Your task to perform on an android device: Open calendar and show me the third week of next month Image 0: 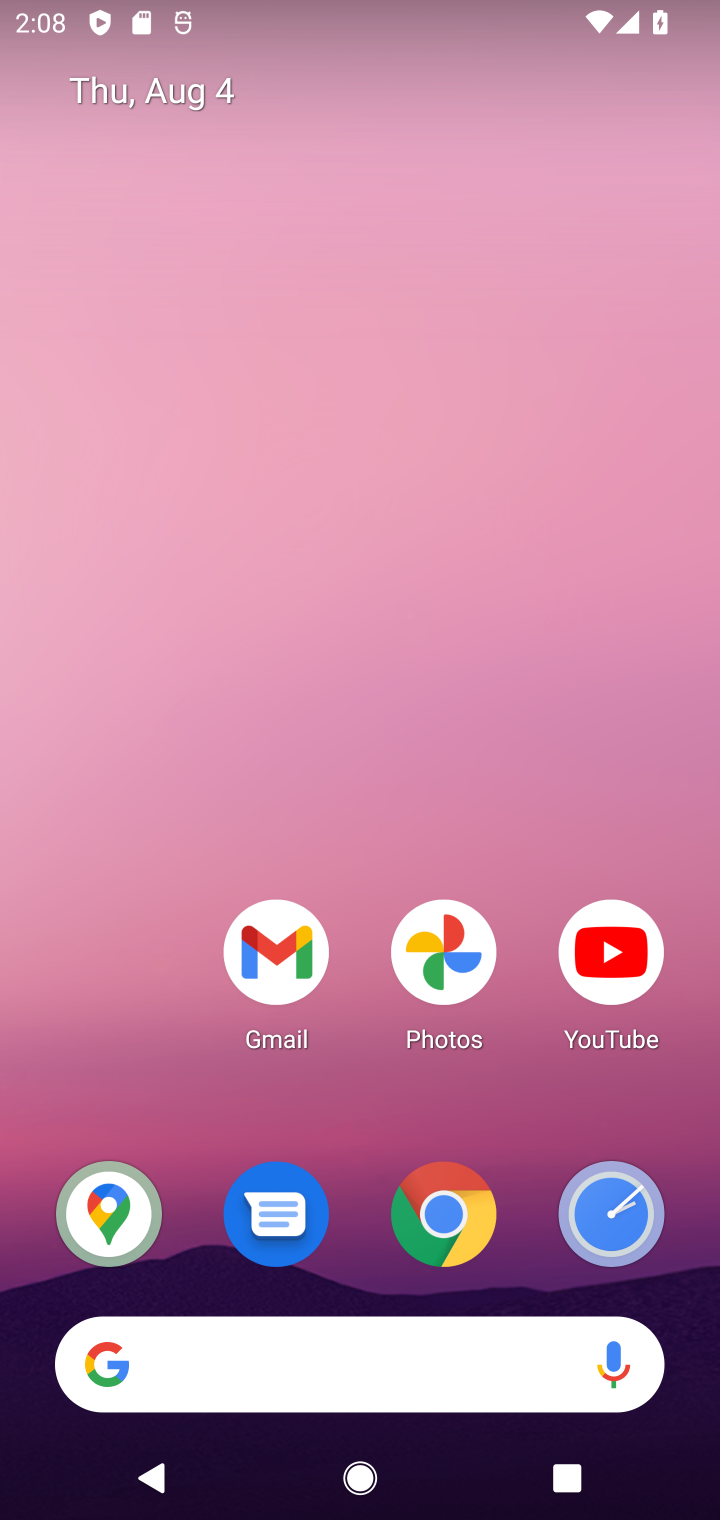
Step 0: drag from (168, 1058) to (76, 125)
Your task to perform on an android device: Open calendar and show me the third week of next month Image 1: 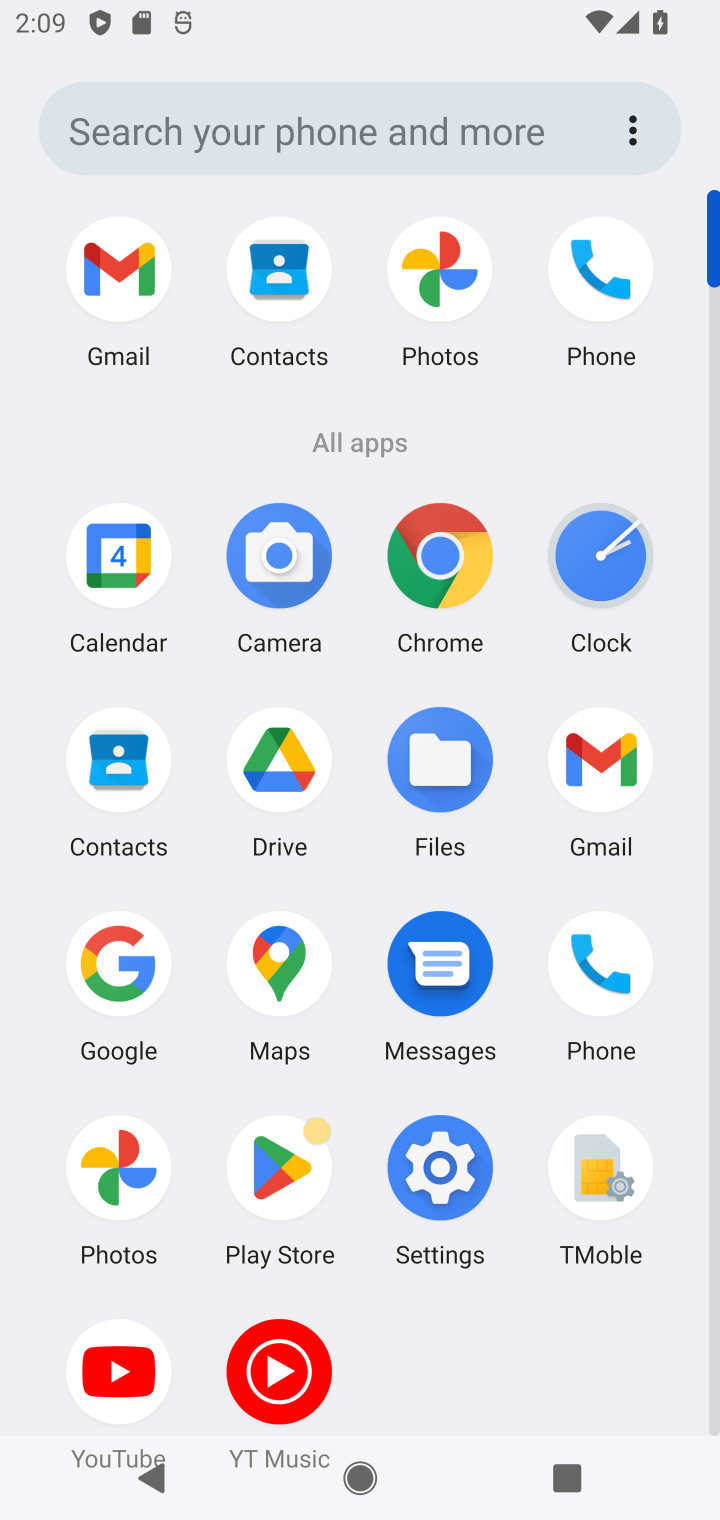
Step 1: click (110, 536)
Your task to perform on an android device: Open calendar and show me the third week of next month Image 2: 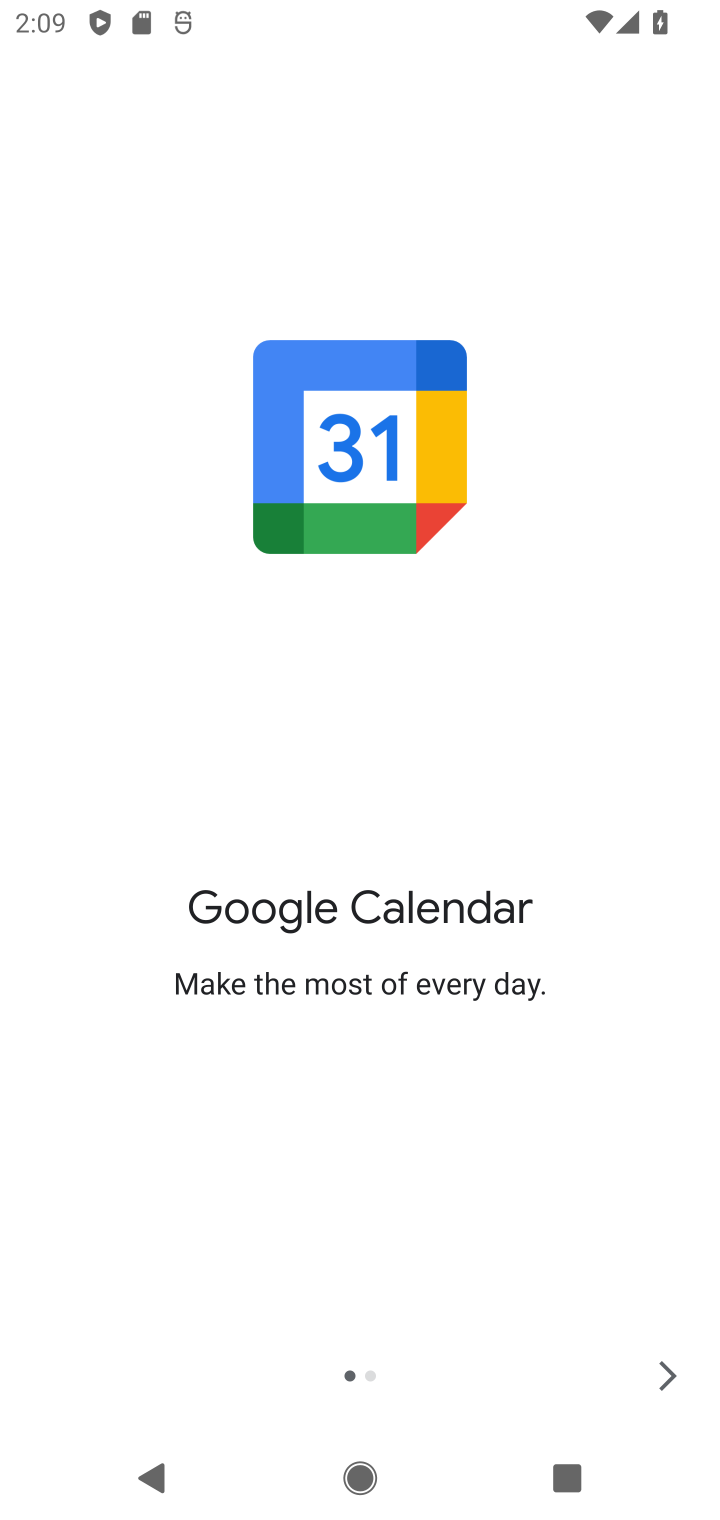
Step 2: click (680, 1362)
Your task to perform on an android device: Open calendar and show me the third week of next month Image 3: 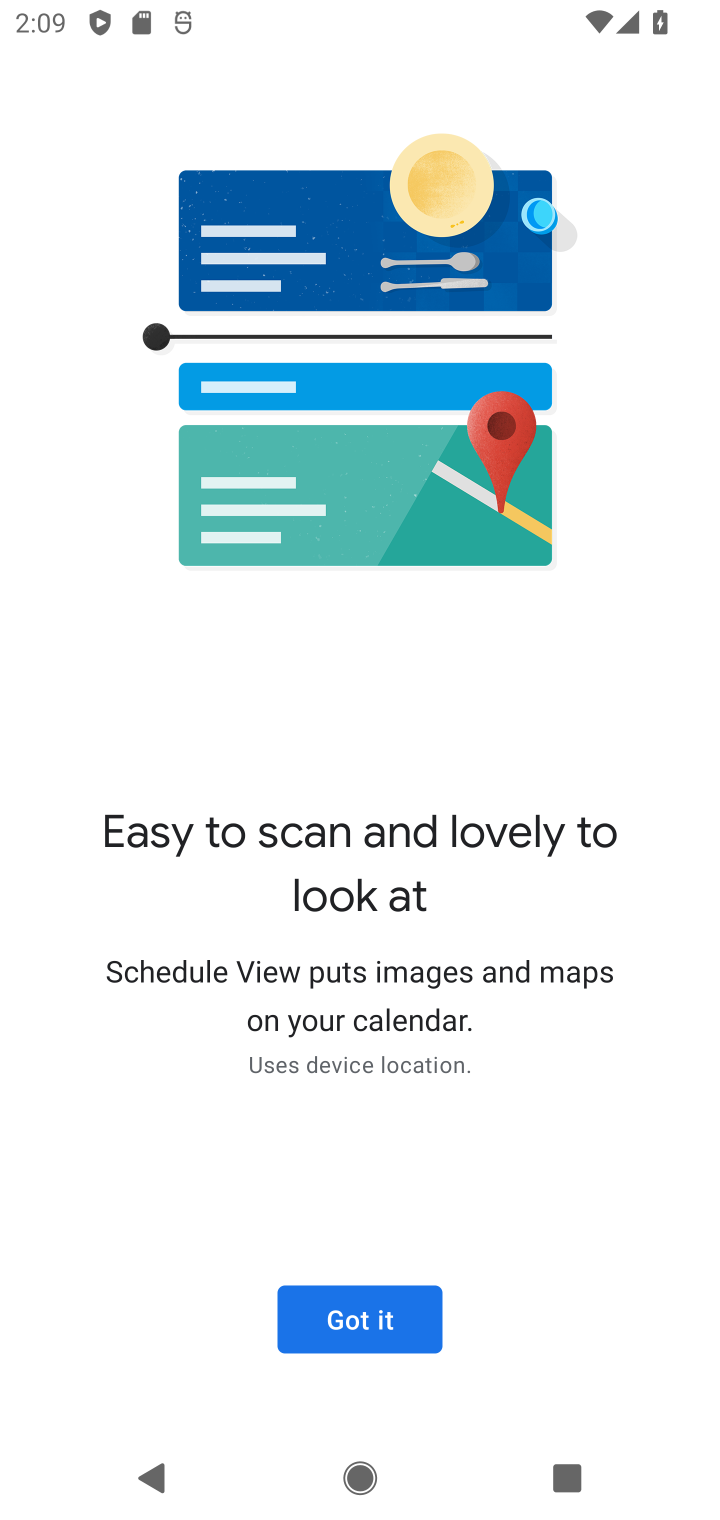
Step 3: click (665, 1334)
Your task to perform on an android device: Open calendar and show me the third week of next month Image 4: 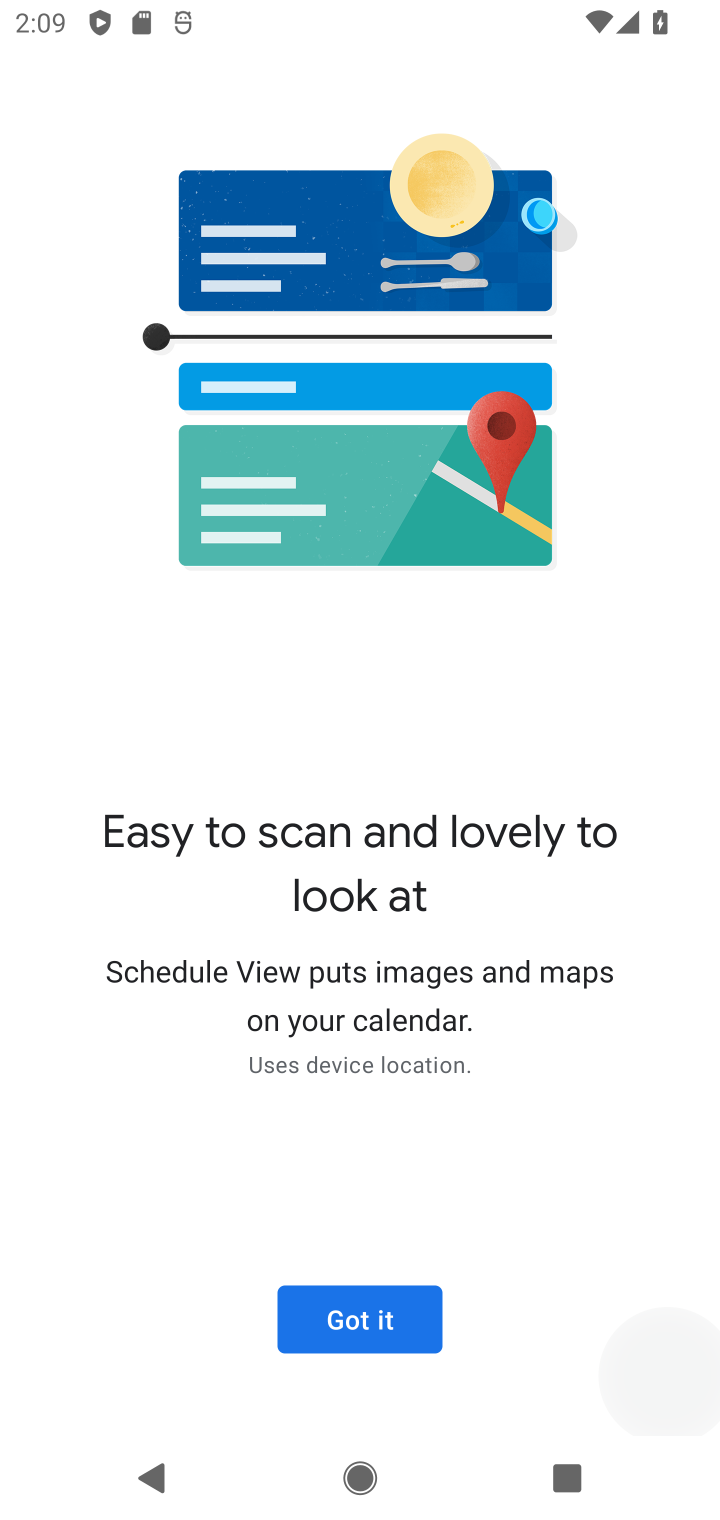
Step 4: click (305, 1298)
Your task to perform on an android device: Open calendar and show me the third week of next month Image 5: 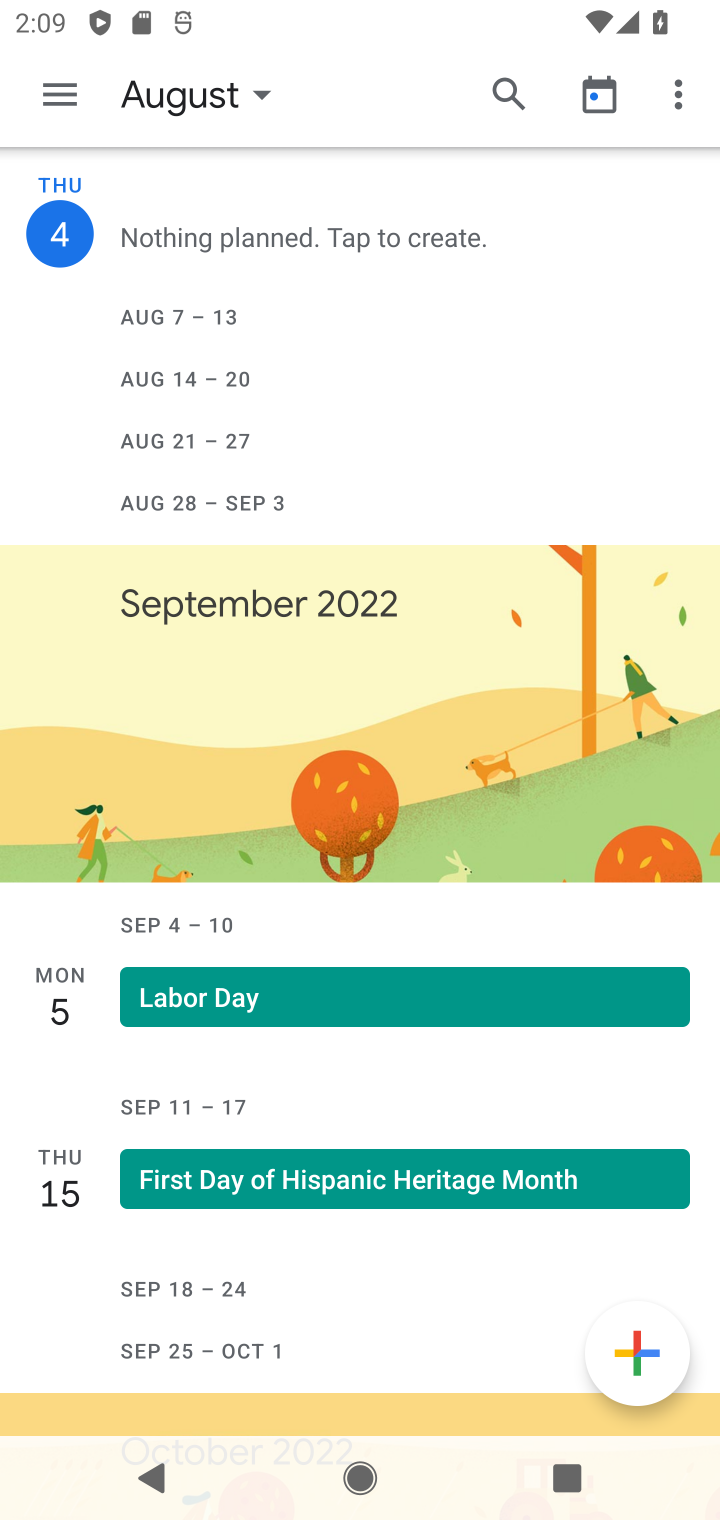
Step 5: click (157, 103)
Your task to perform on an android device: Open calendar and show me the third week of next month Image 6: 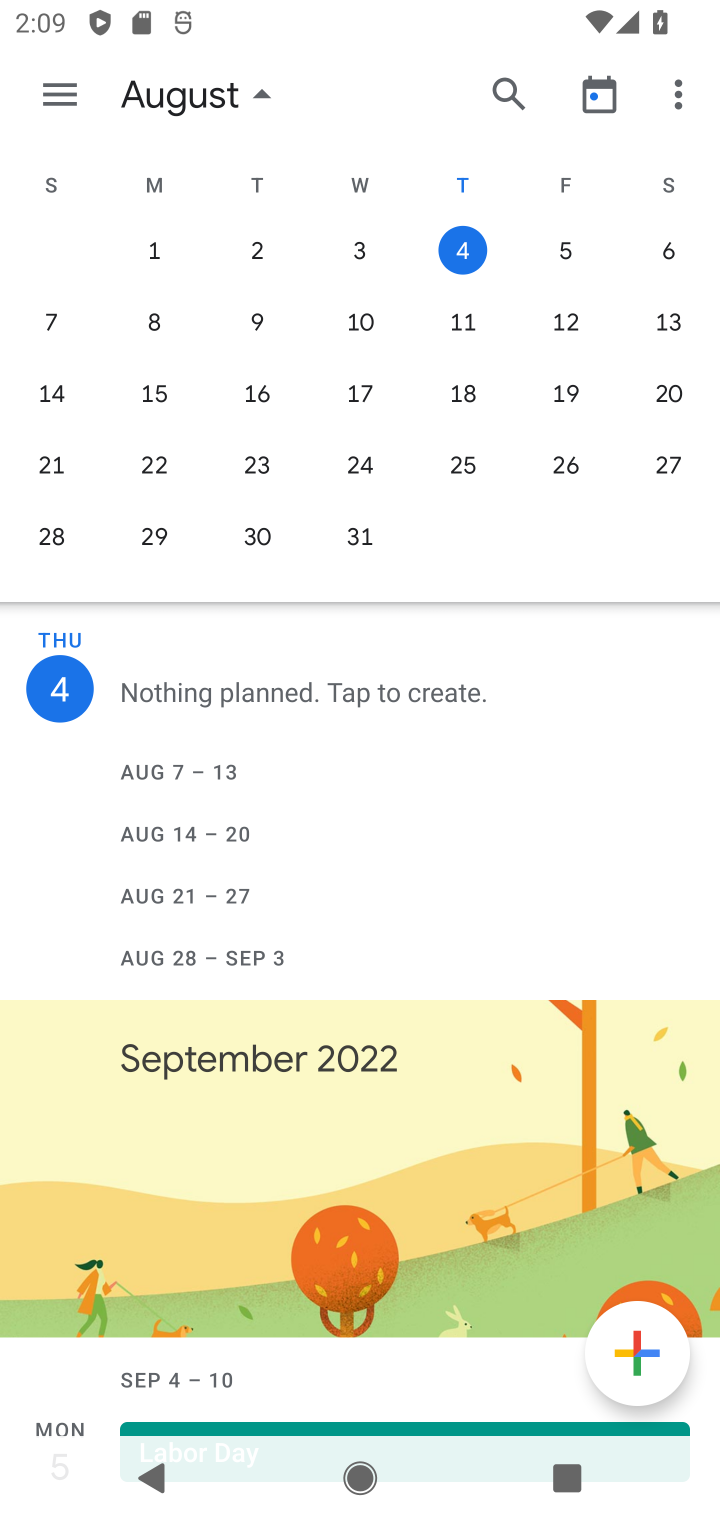
Step 6: drag from (649, 342) to (131, 337)
Your task to perform on an android device: Open calendar and show me the third week of next month Image 7: 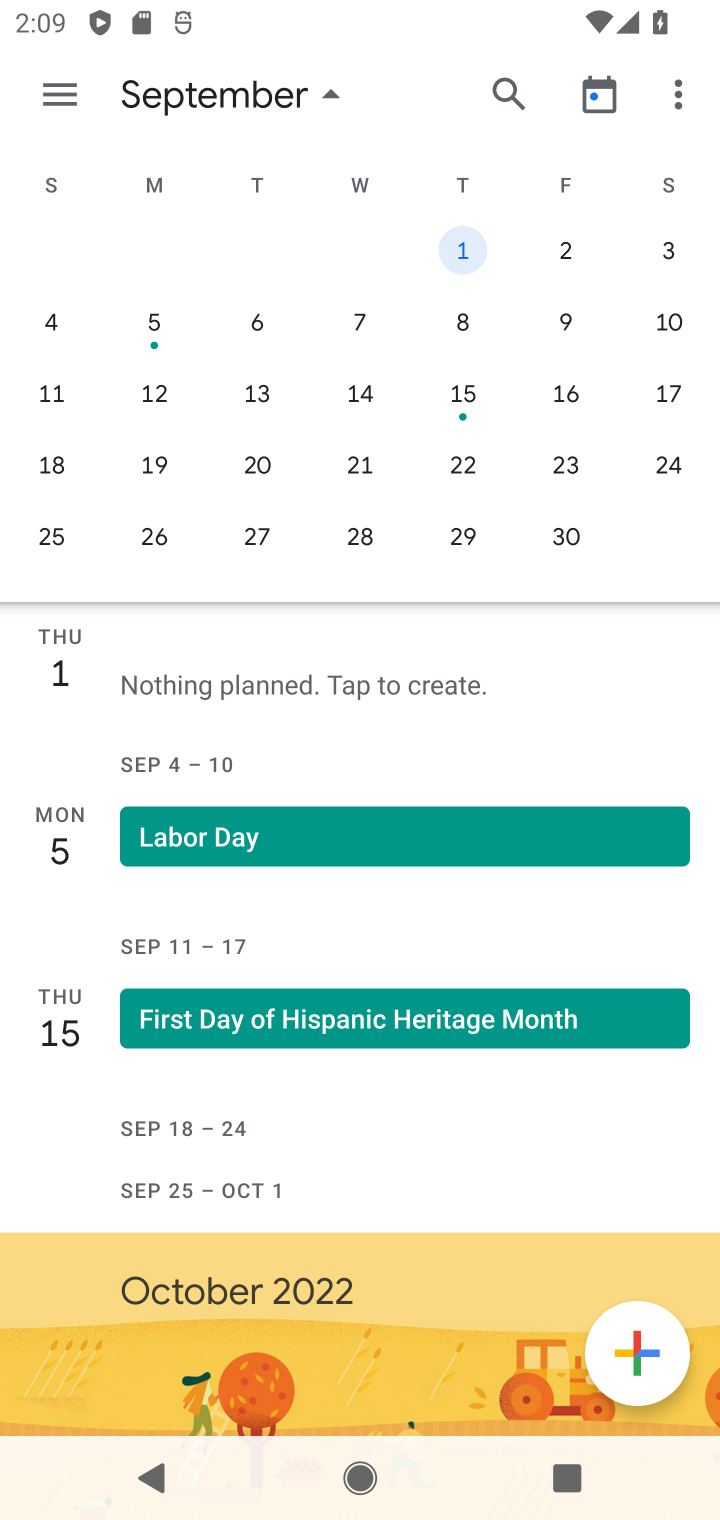
Step 7: click (44, 447)
Your task to perform on an android device: Open calendar and show me the third week of next month Image 8: 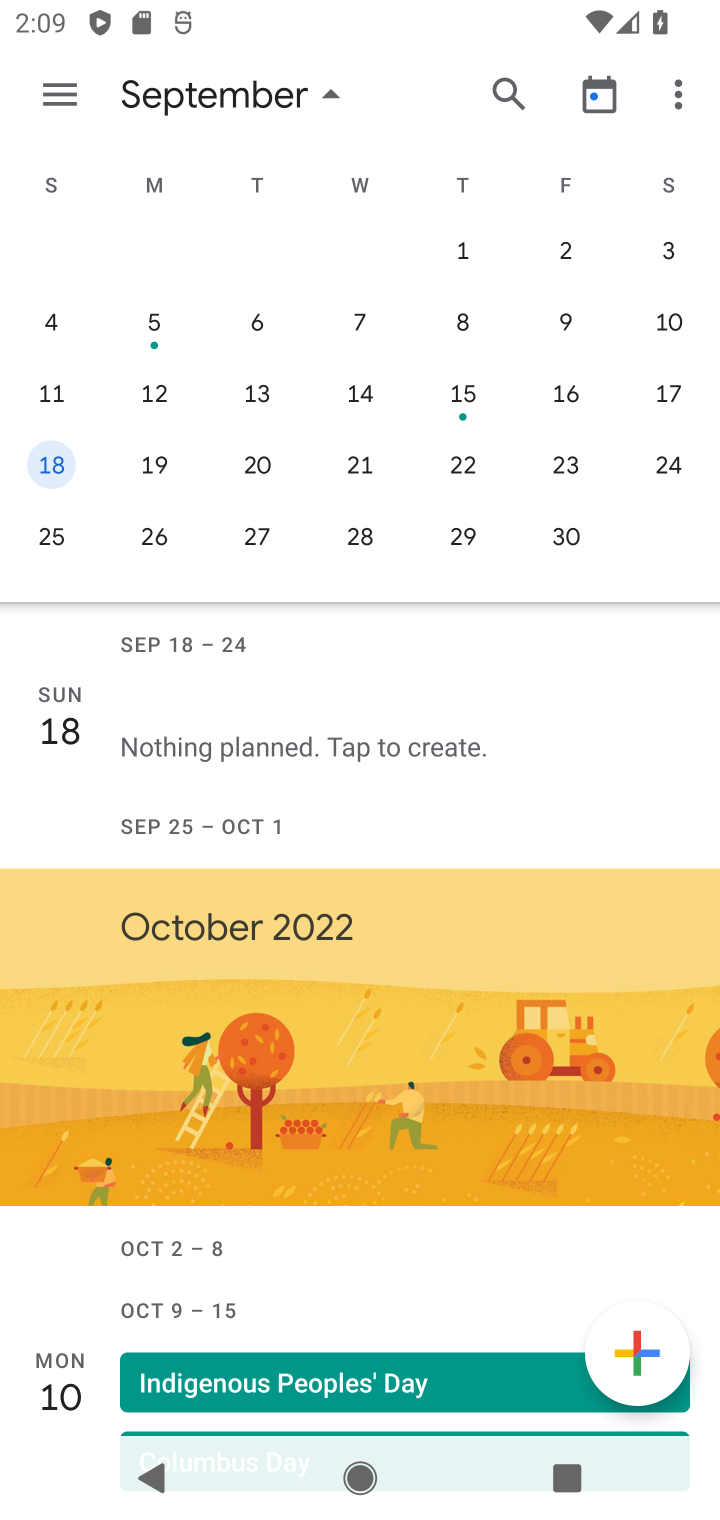
Step 8: task complete